Your task to perform on an android device: turn off airplane mode Image 0: 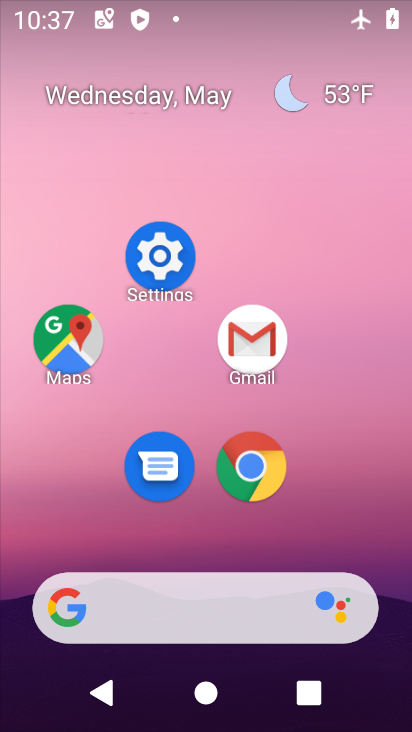
Step 0: drag from (241, 496) to (290, 244)
Your task to perform on an android device: turn off airplane mode Image 1: 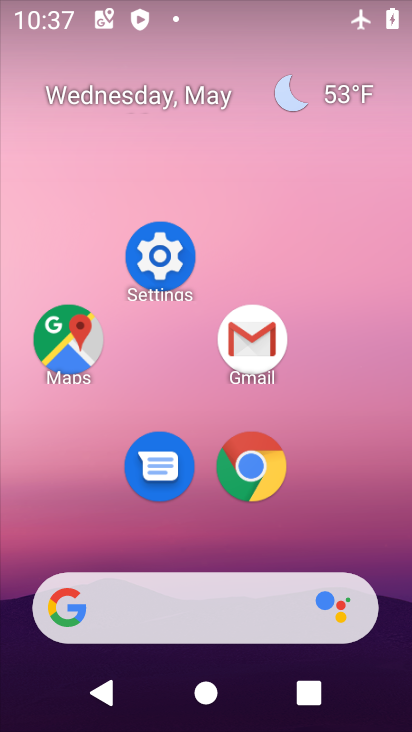
Step 1: drag from (186, 521) to (233, 273)
Your task to perform on an android device: turn off airplane mode Image 2: 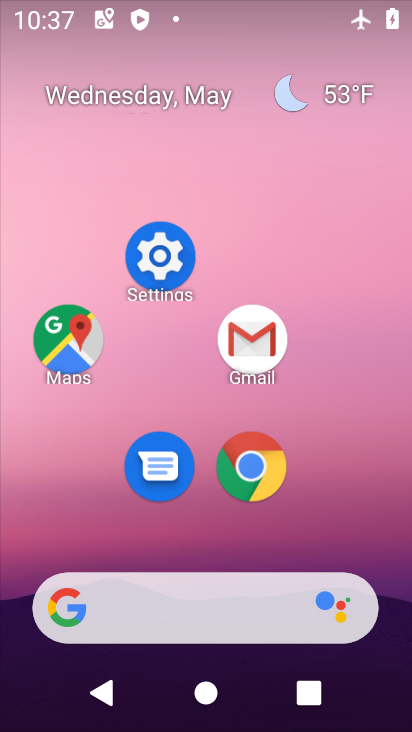
Step 2: click (163, 259)
Your task to perform on an android device: turn off airplane mode Image 3: 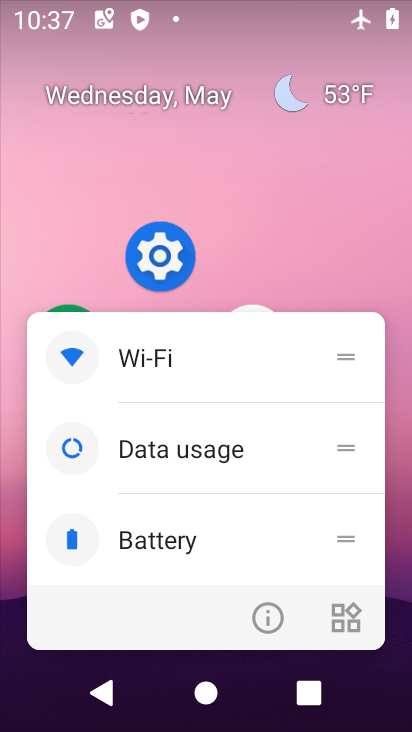
Step 3: click (269, 614)
Your task to perform on an android device: turn off airplane mode Image 4: 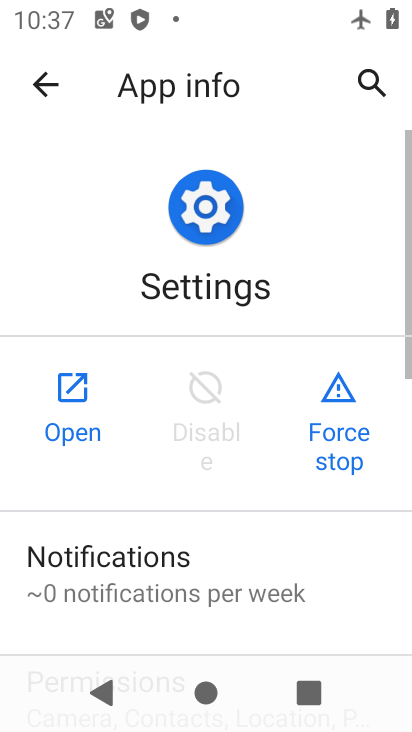
Step 4: click (67, 385)
Your task to perform on an android device: turn off airplane mode Image 5: 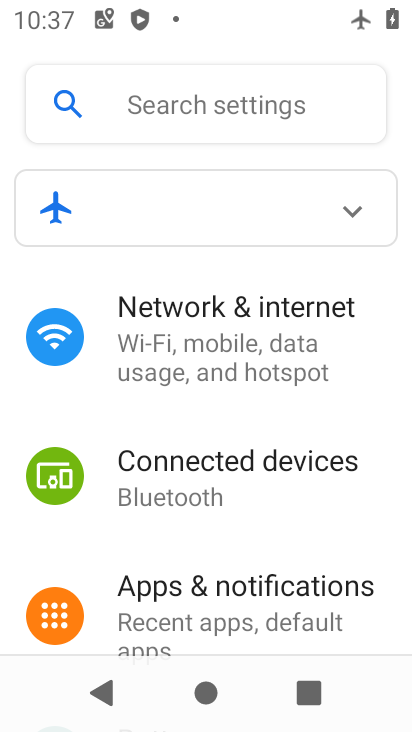
Step 5: click (236, 325)
Your task to perform on an android device: turn off airplane mode Image 6: 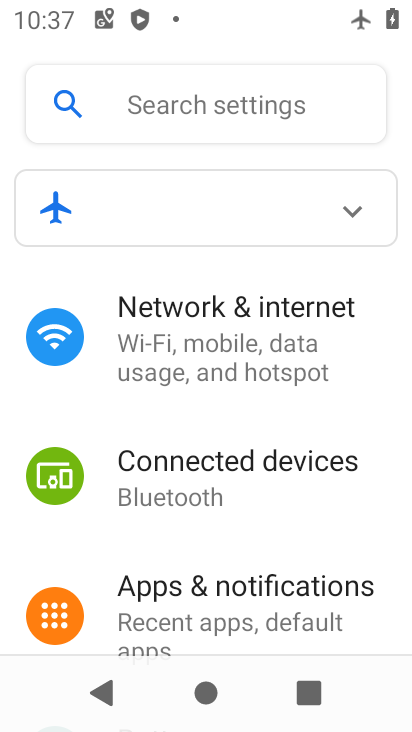
Step 6: click (236, 325)
Your task to perform on an android device: turn off airplane mode Image 7: 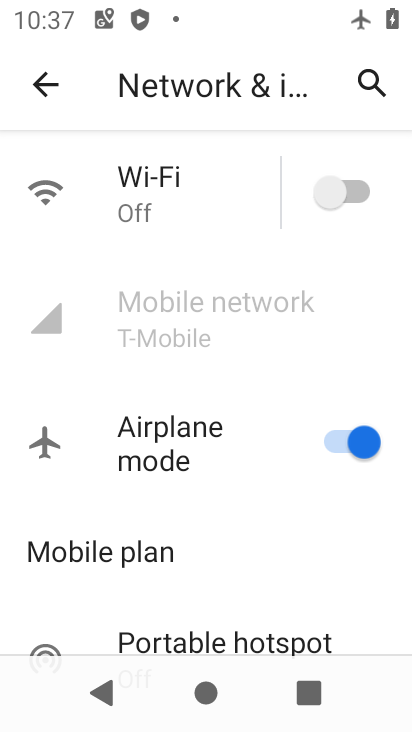
Step 7: click (338, 454)
Your task to perform on an android device: turn off airplane mode Image 8: 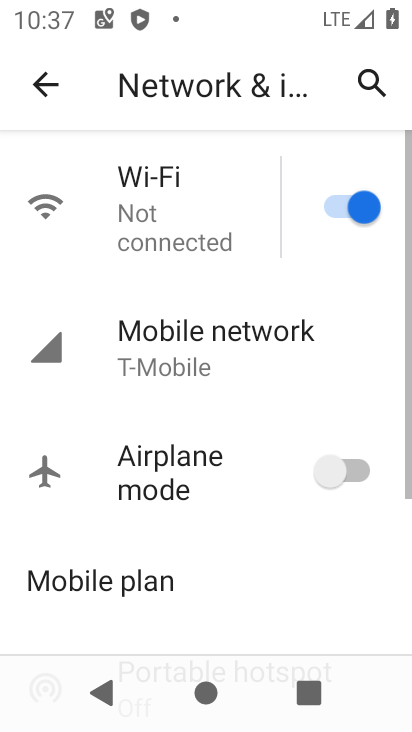
Step 8: task complete